Your task to perform on an android device: What's the weather going to be tomorrow? Image 0: 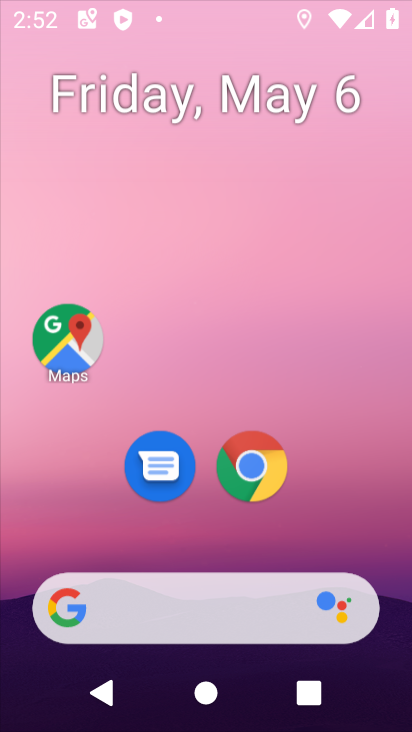
Step 0: press back button
Your task to perform on an android device: What's the weather going to be tomorrow? Image 1: 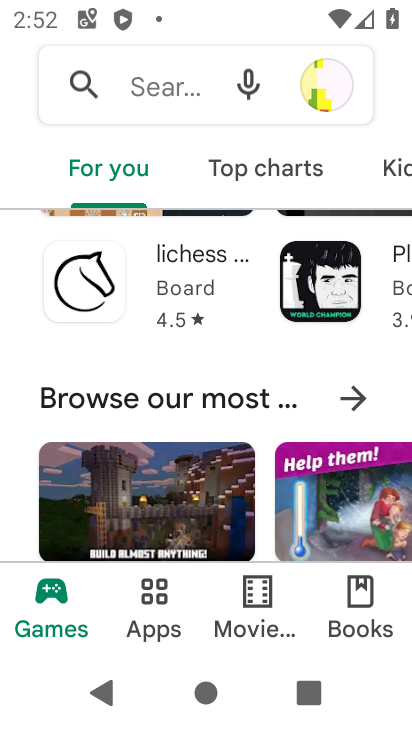
Step 1: press back button
Your task to perform on an android device: What's the weather going to be tomorrow? Image 2: 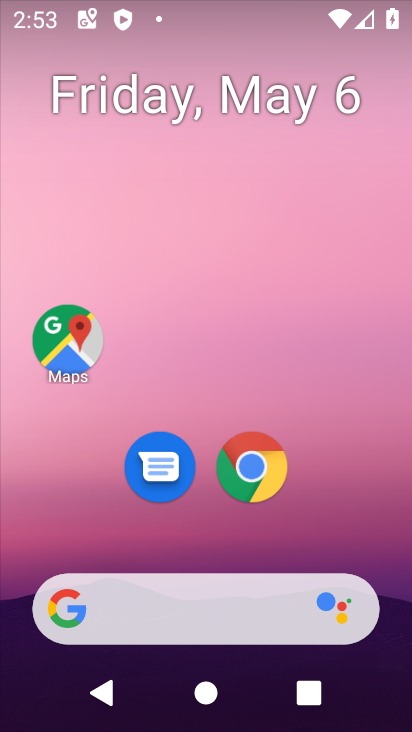
Step 2: click (125, 611)
Your task to perform on an android device: What's the weather going to be tomorrow? Image 3: 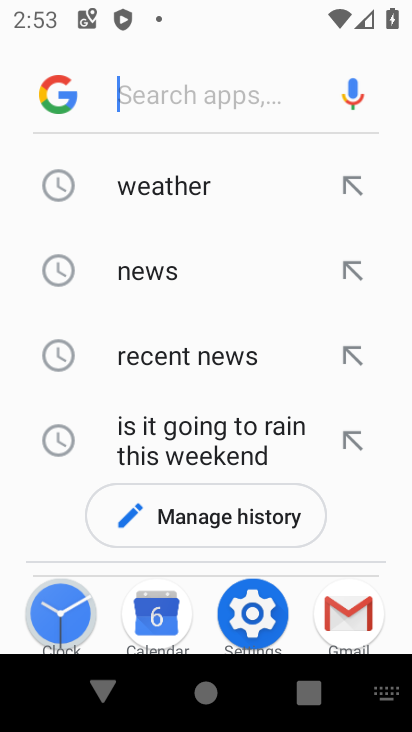
Step 3: click (152, 174)
Your task to perform on an android device: What's the weather going to be tomorrow? Image 4: 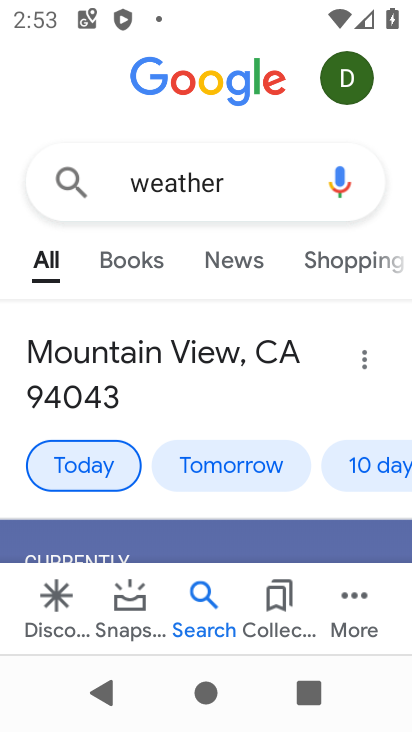
Step 4: drag from (136, 547) to (252, 151)
Your task to perform on an android device: What's the weather going to be tomorrow? Image 5: 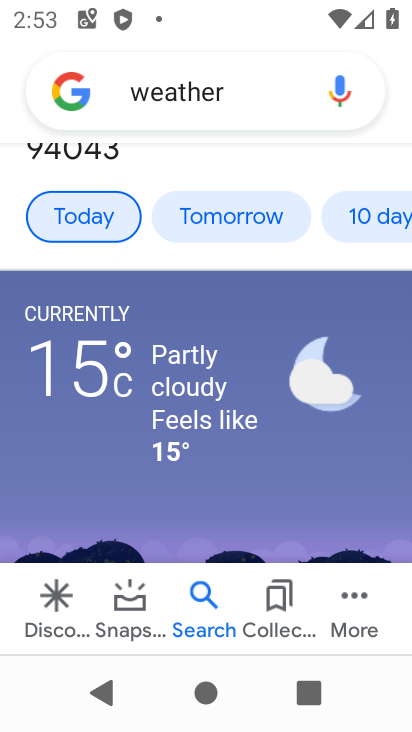
Step 5: click (209, 220)
Your task to perform on an android device: What's the weather going to be tomorrow? Image 6: 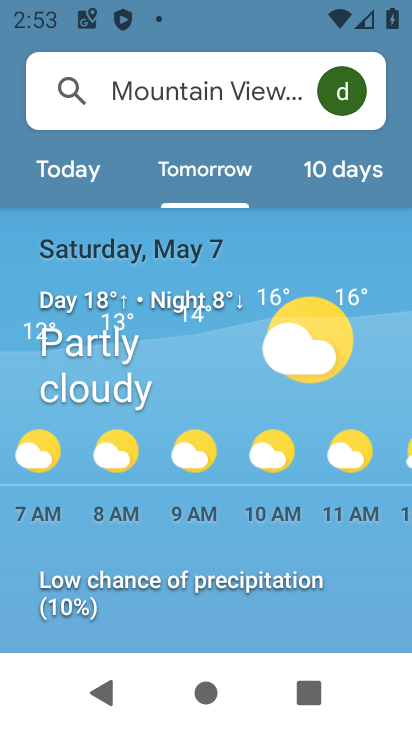
Step 6: task complete